Your task to perform on an android device: Open Chrome and go to settings Image 0: 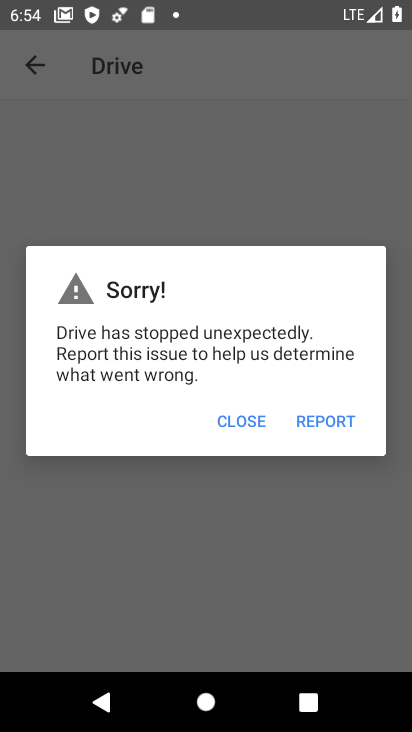
Step 0: press home button
Your task to perform on an android device: Open Chrome and go to settings Image 1: 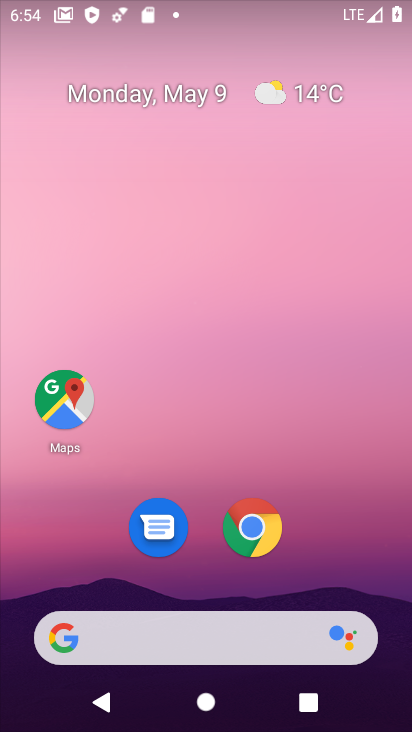
Step 1: click (251, 526)
Your task to perform on an android device: Open Chrome and go to settings Image 2: 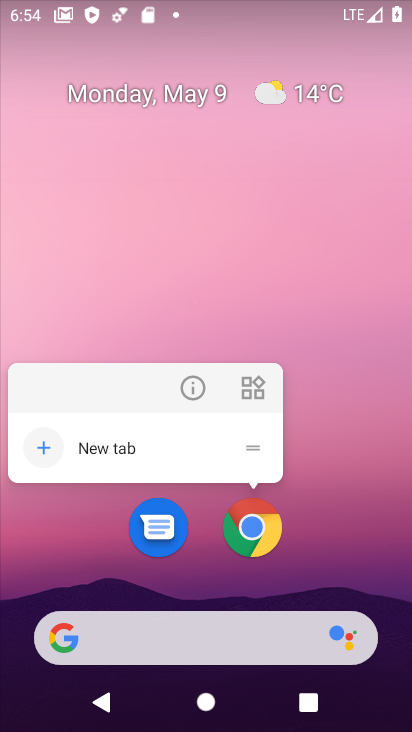
Step 2: click (258, 531)
Your task to perform on an android device: Open Chrome and go to settings Image 3: 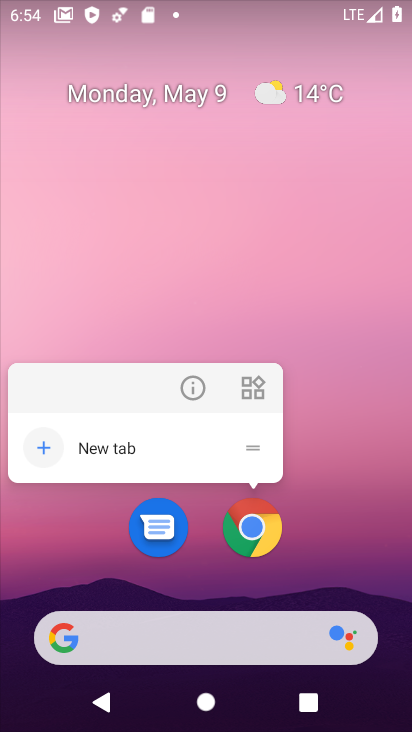
Step 3: click (258, 531)
Your task to perform on an android device: Open Chrome and go to settings Image 4: 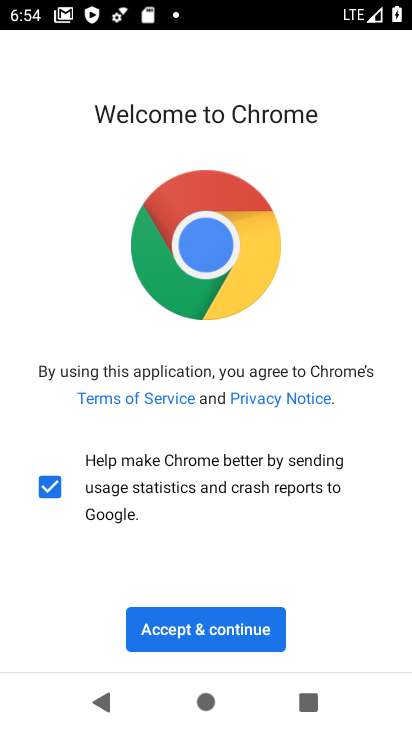
Step 4: click (193, 631)
Your task to perform on an android device: Open Chrome and go to settings Image 5: 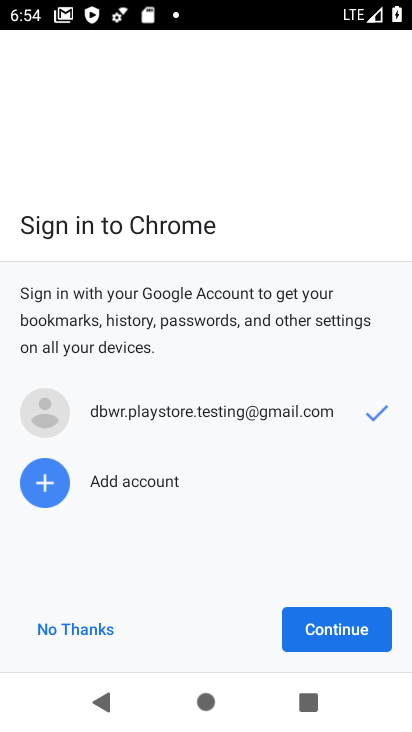
Step 5: click (339, 630)
Your task to perform on an android device: Open Chrome and go to settings Image 6: 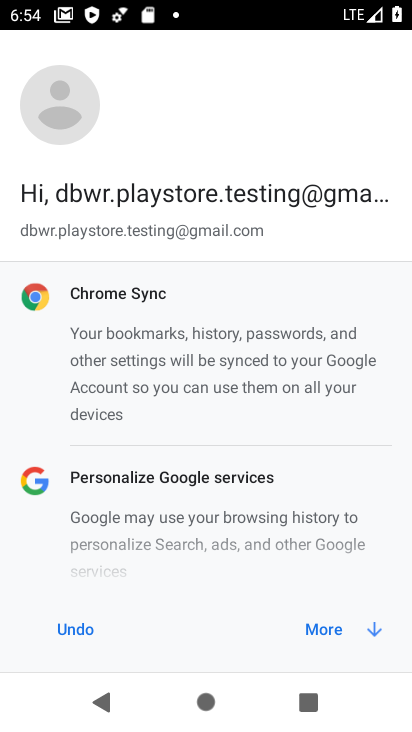
Step 6: click (339, 630)
Your task to perform on an android device: Open Chrome and go to settings Image 7: 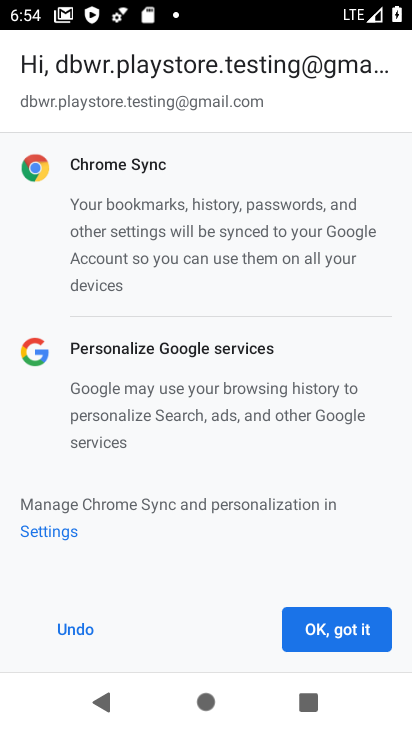
Step 7: click (339, 630)
Your task to perform on an android device: Open Chrome and go to settings Image 8: 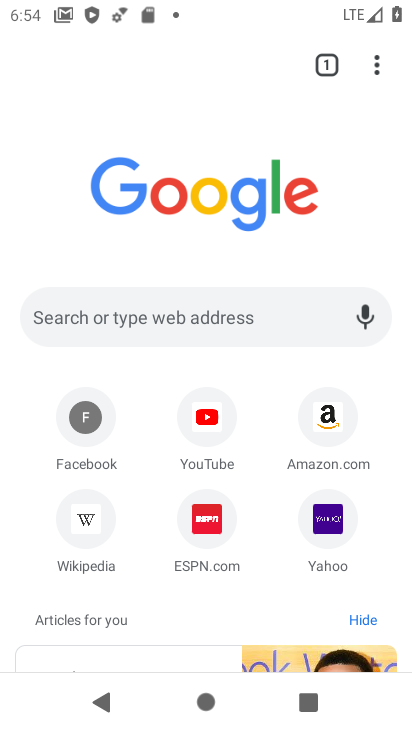
Step 8: click (379, 69)
Your task to perform on an android device: Open Chrome and go to settings Image 9: 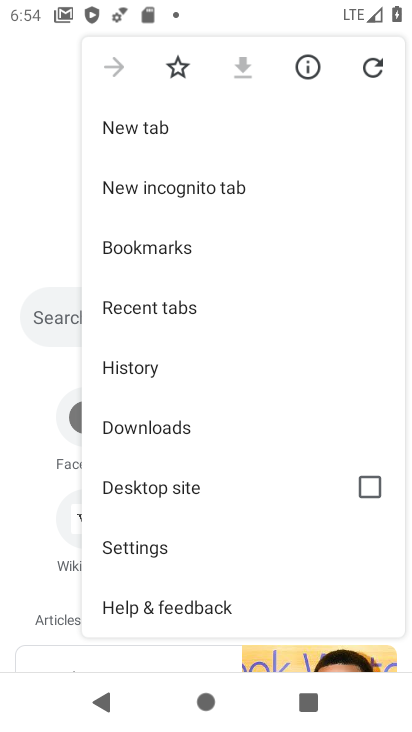
Step 9: click (136, 546)
Your task to perform on an android device: Open Chrome and go to settings Image 10: 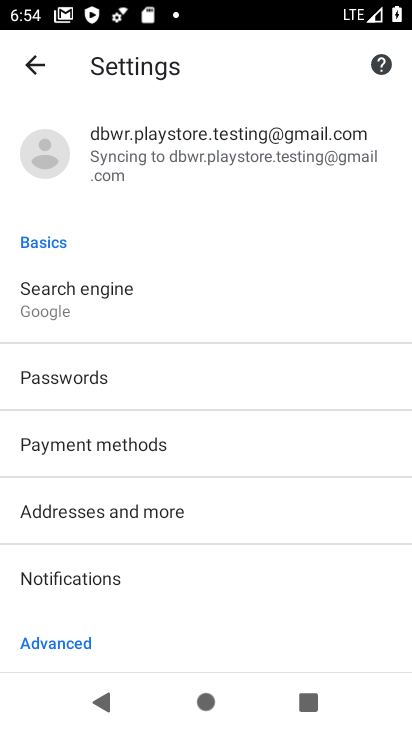
Step 10: task complete